Your task to perform on an android device: open app "Booking.com: Hotels and more" (install if not already installed) Image 0: 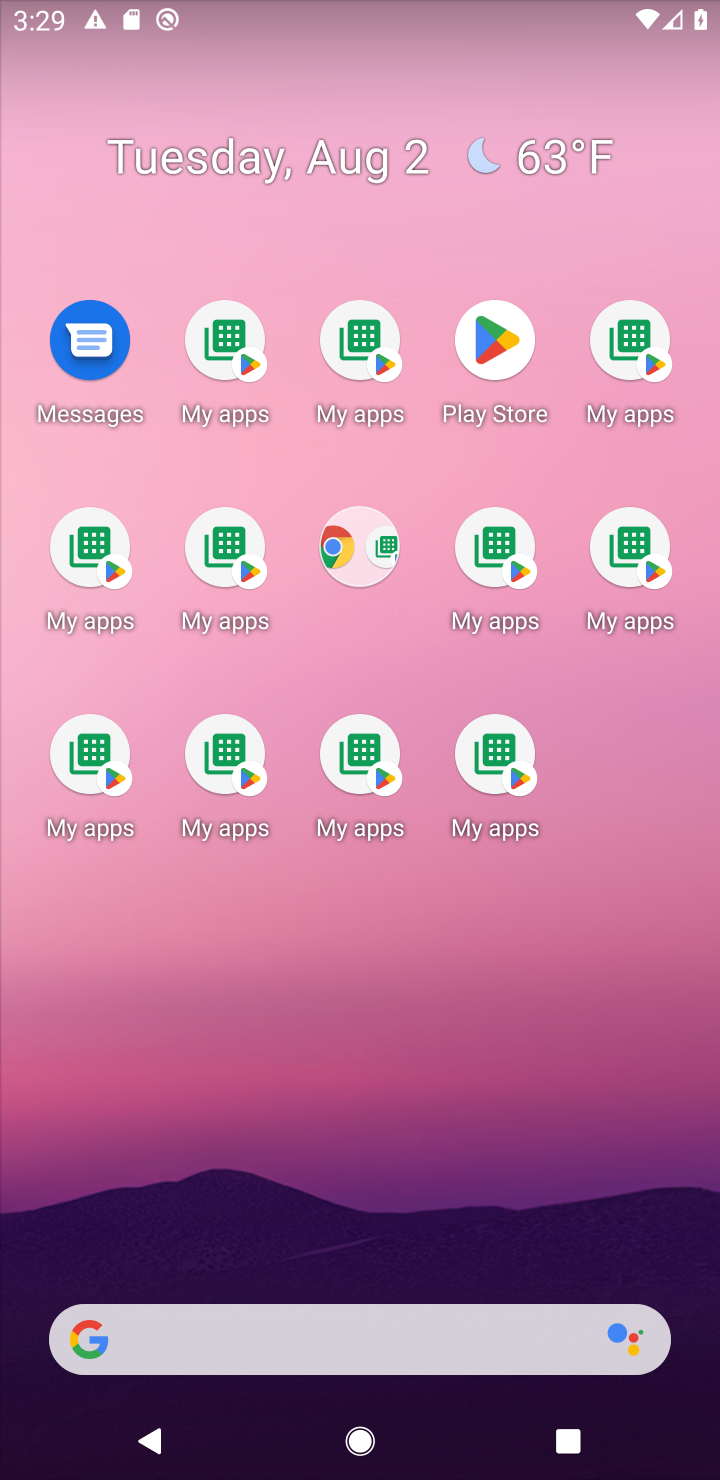
Step 0: click (500, 821)
Your task to perform on an android device: open app "Booking.com: Hotels and more" (install if not already installed) Image 1: 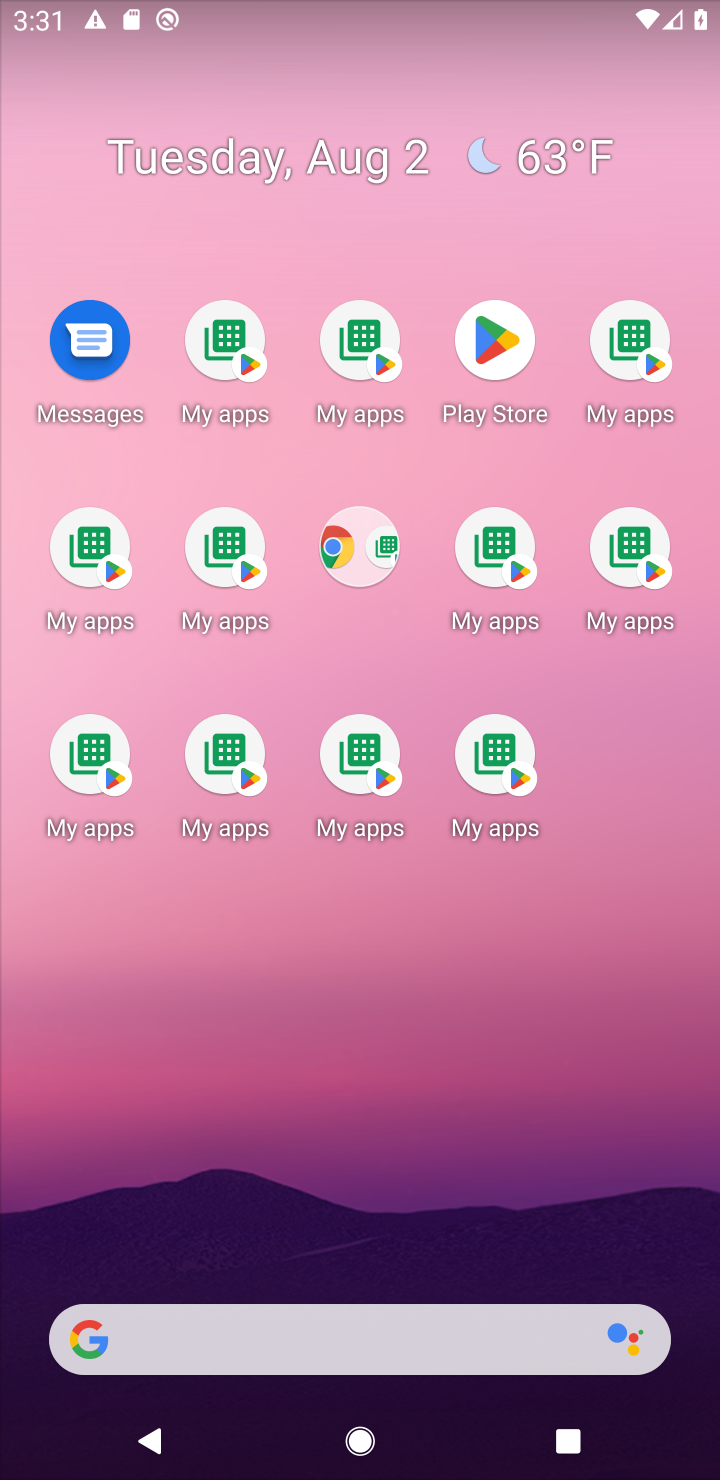
Step 1: click (492, 331)
Your task to perform on an android device: open app "Booking.com: Hotels and more" (install if not already installed) Image 2: 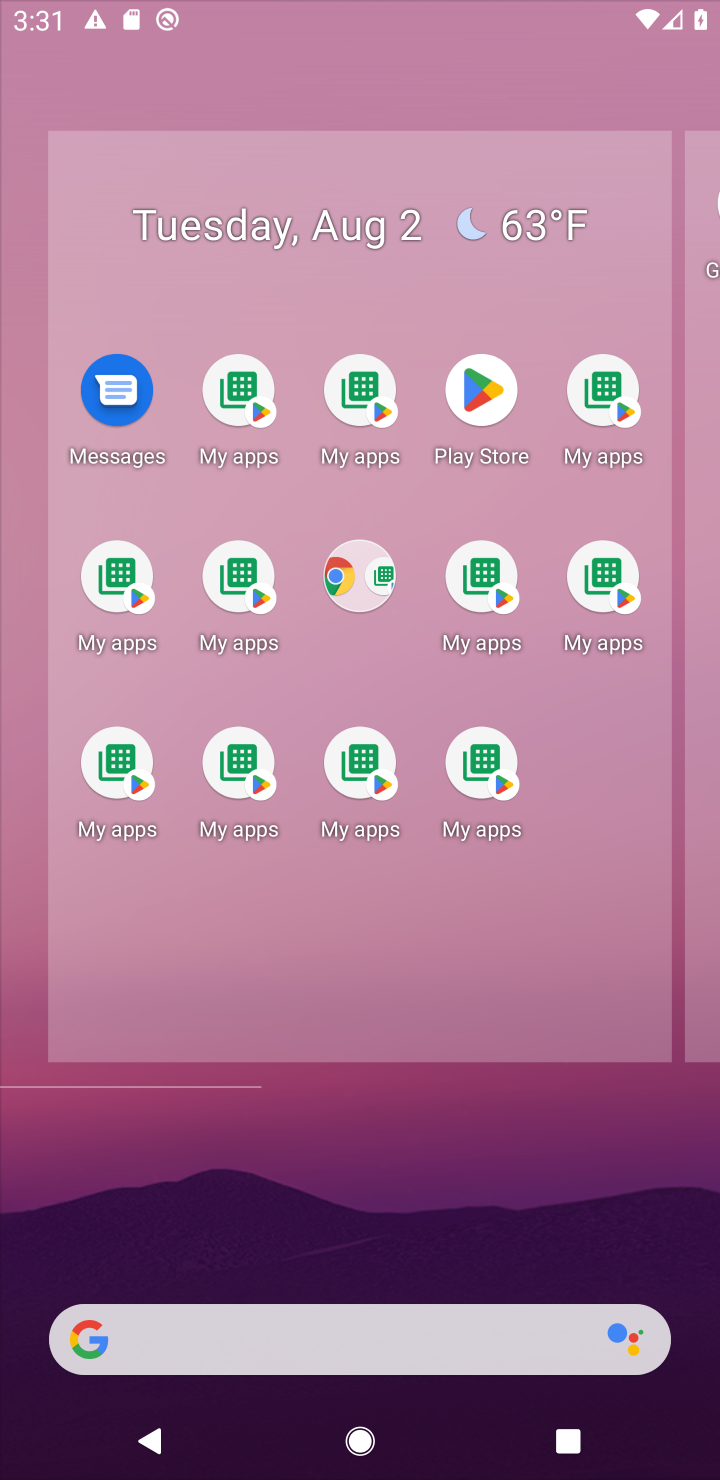
Step 2: click (496, 352)
Your task to perform on an android device: open app "Booking.com: Hotels and more" (install if not already installed) Image 3: 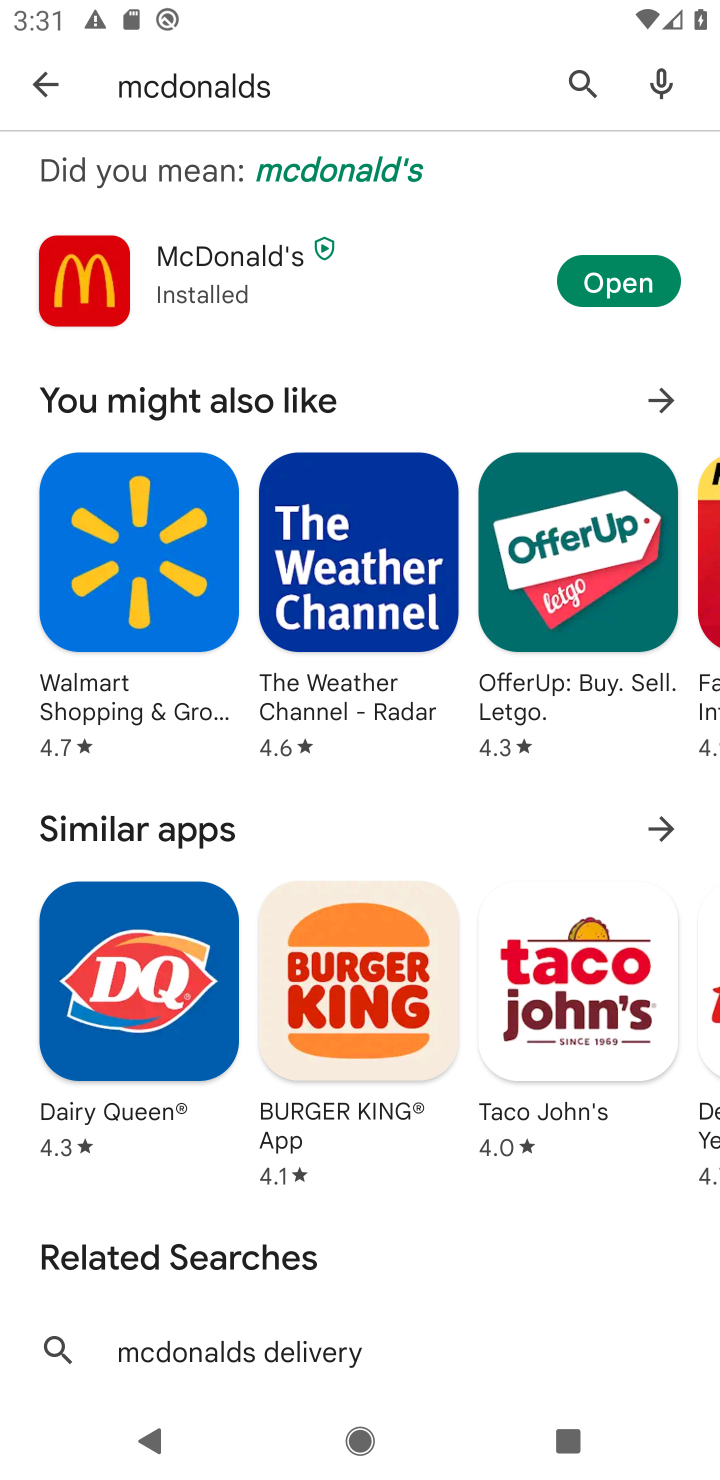
Step 3: click (583, 78)
Your task to perform on an android device: open app "Booking.com: Hotels and more" (install if not already installed) Image 4: 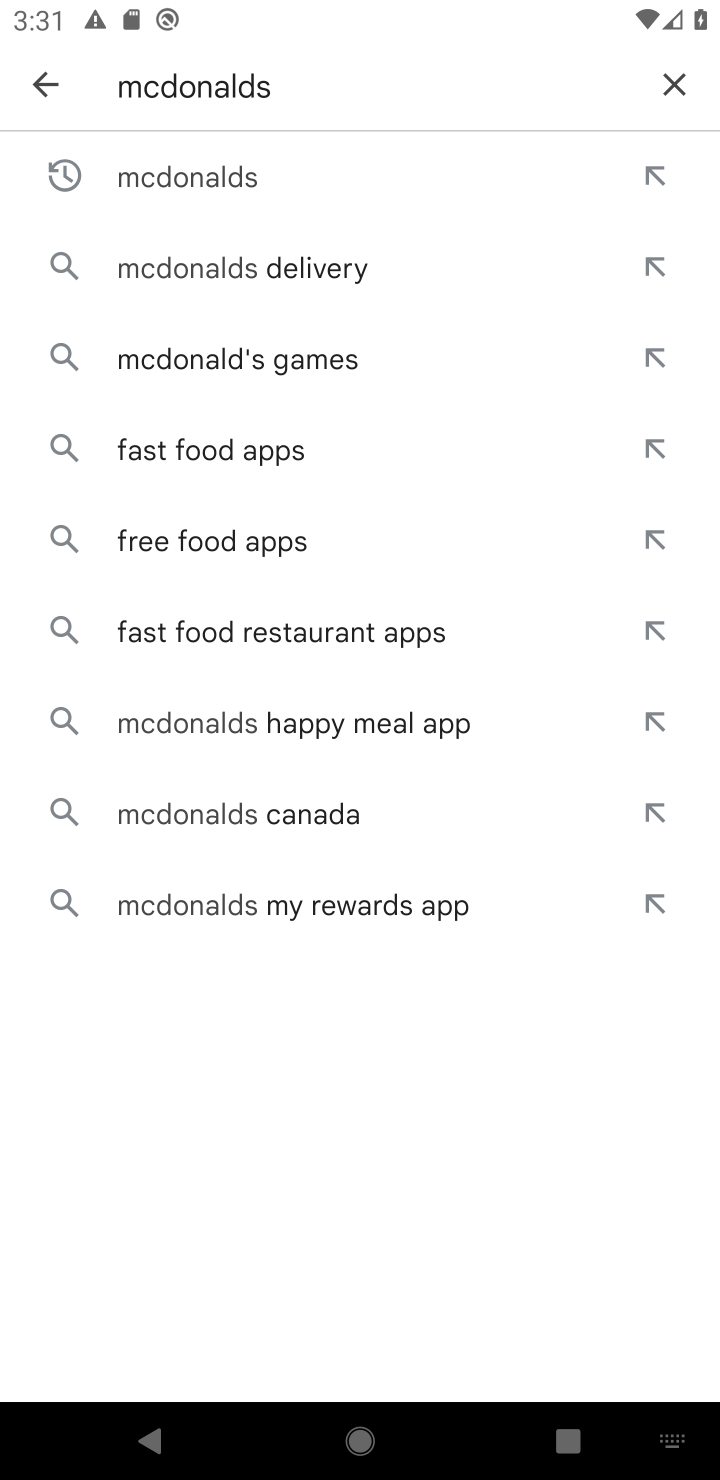
Step 4: click (662, 79)
Your task to perform on an android device: open app "Booking.com: Hotels and more" (install if not already installed) Image 5: 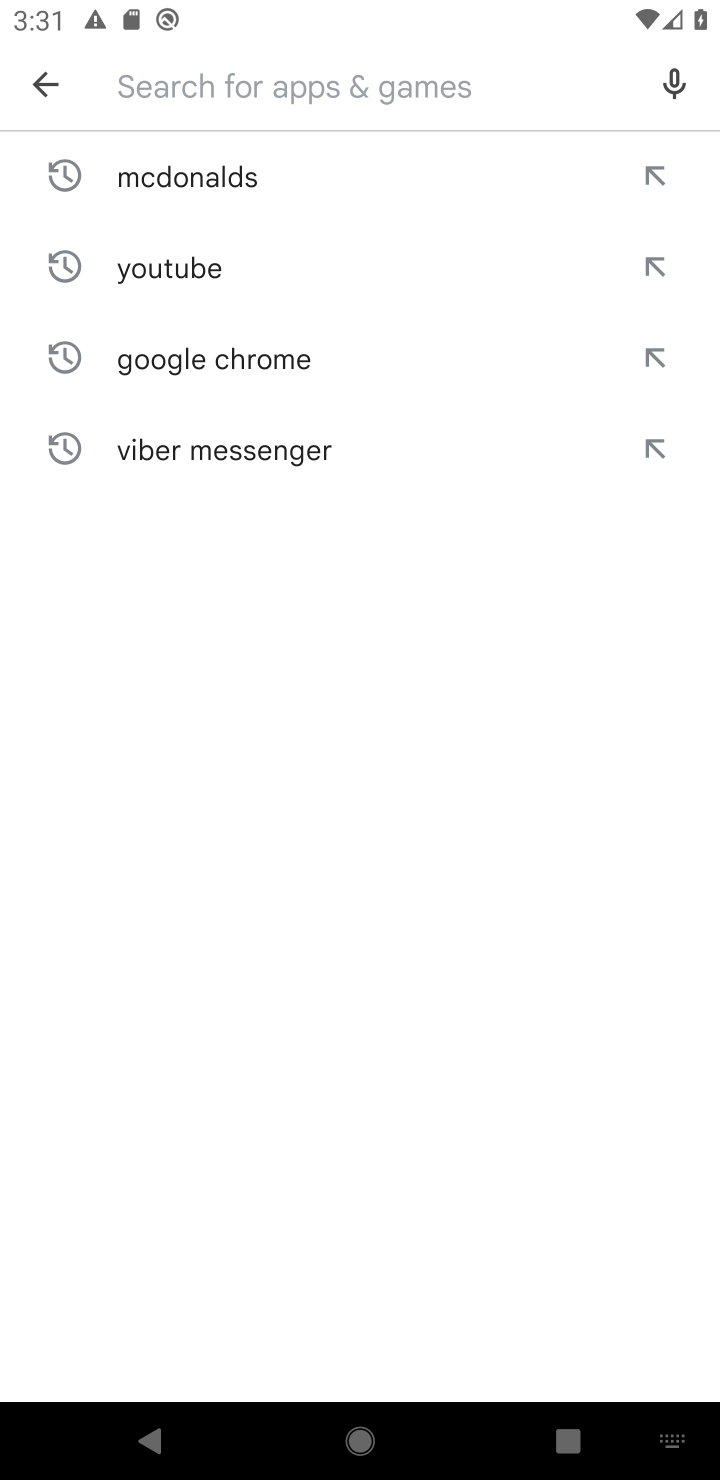
Step 5: type "booking"
Your task to perform on an android device: open app "Booking.com: Hotels and more" (install if not already installed) Image 6: 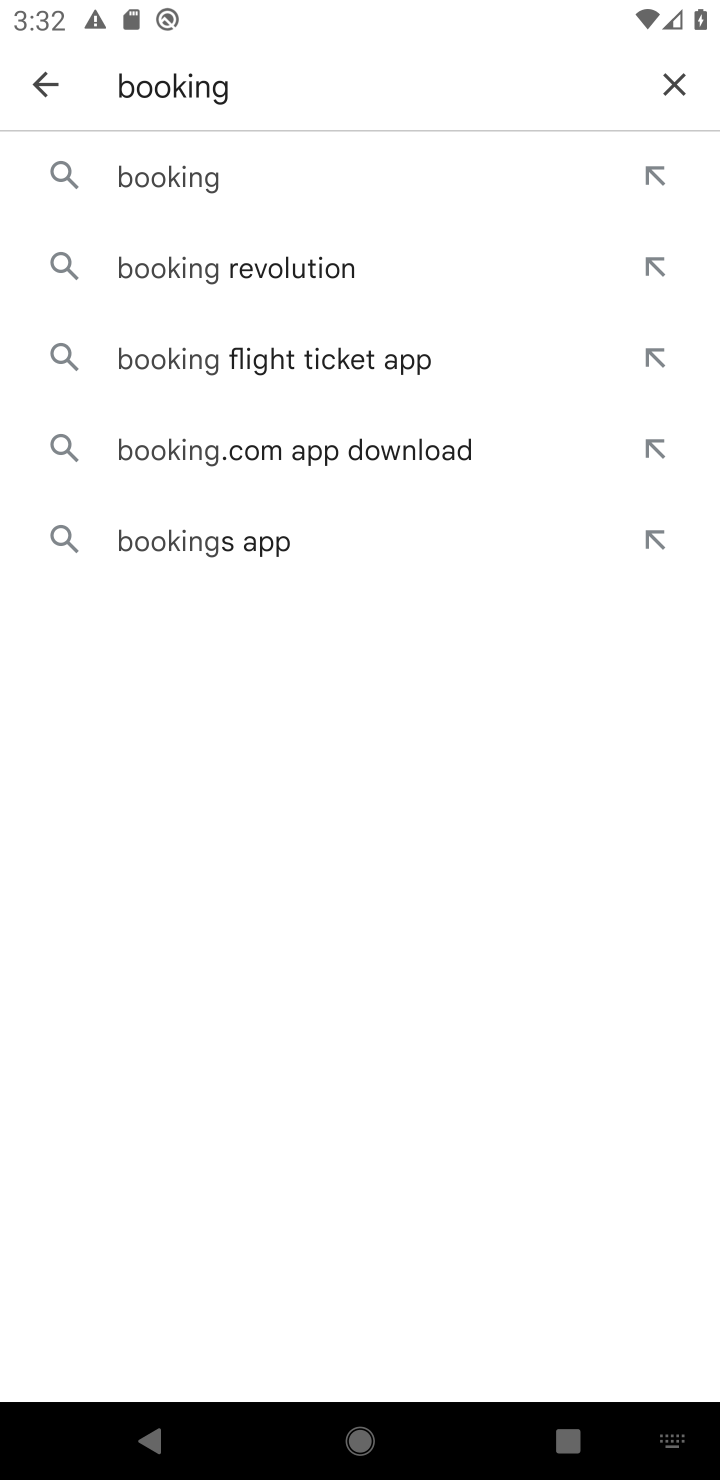
Step 6: click (54, 69)
Your task to perform on an android device: open app "Booking.com: Hotels and more" (install if not already installed) Image 7: 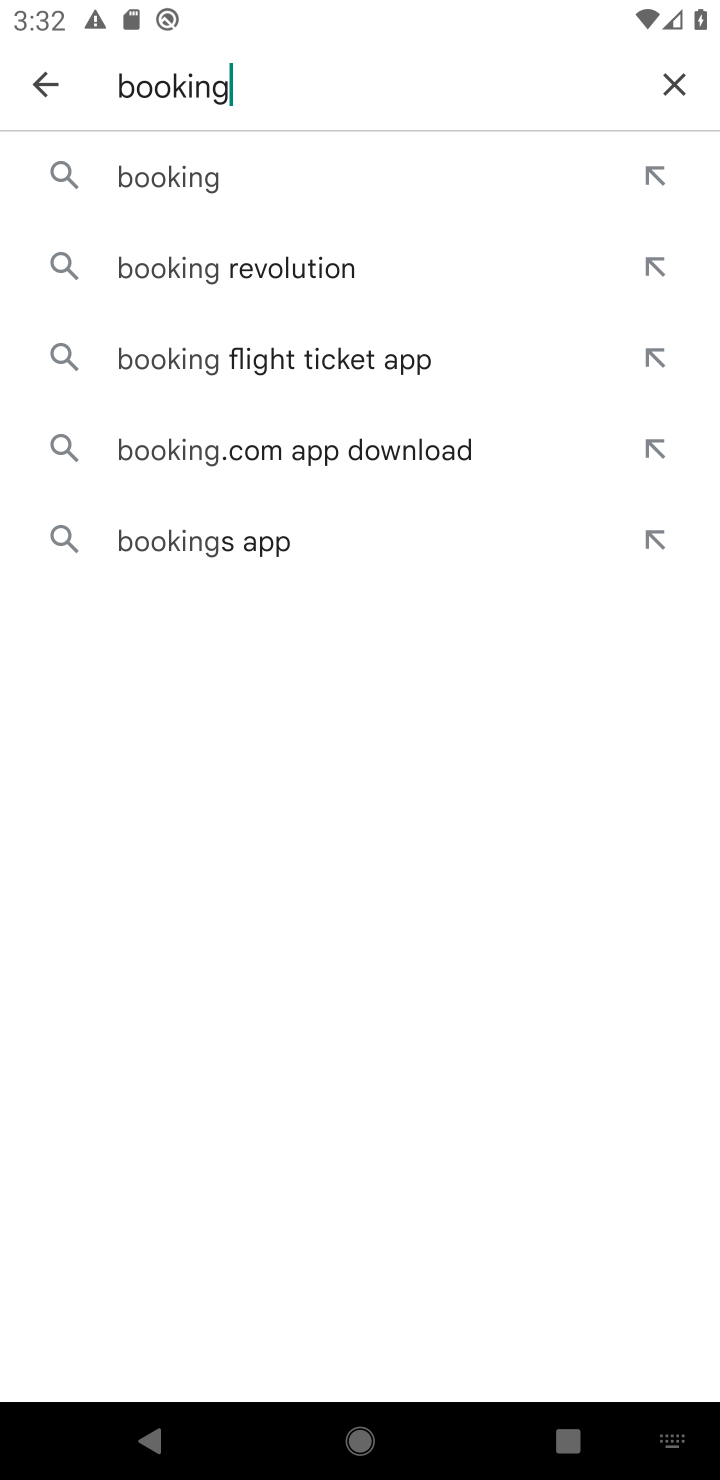
Step 7: click (52, 69)
Your task to perform on an android device: open app "Booking.com: Hotels and more" (install if not already installed) Image 8: 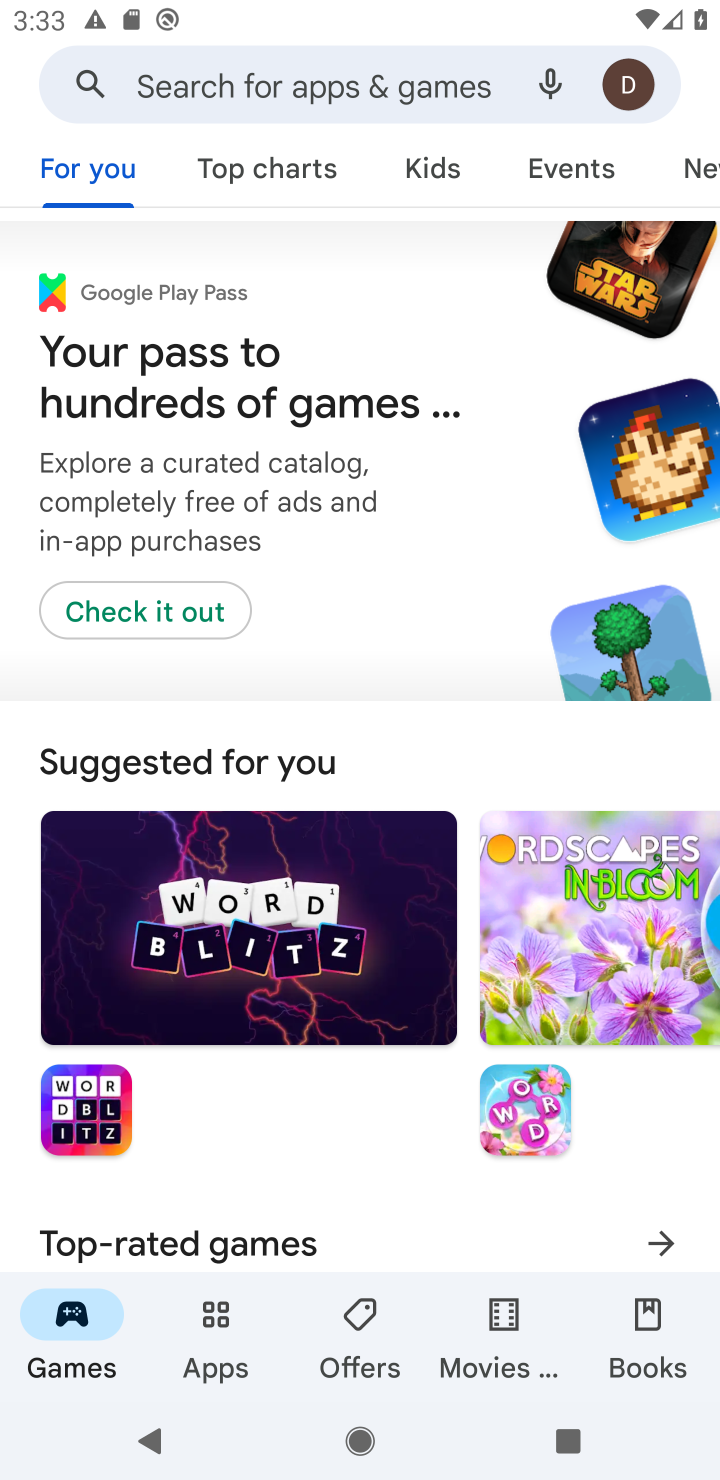
Step 8: click (326, 37)
Your task to perform on an android device: open app "Booking.com: Hotels and more" (install if not already installed) Image 9: 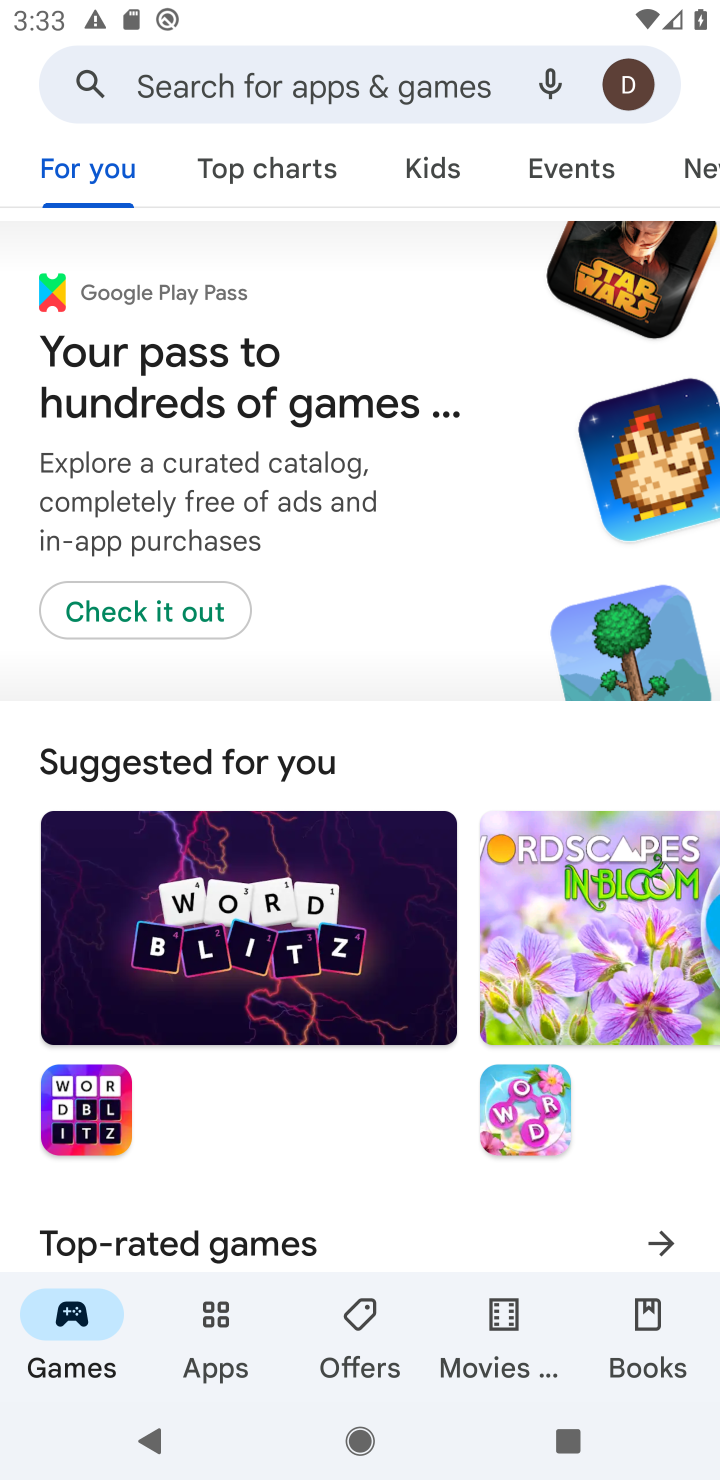
Step 9: click (326, 38)
Your task to perform on an android device: open app "Booking.com: Hotels and more" (install if not already installed) Image 10: 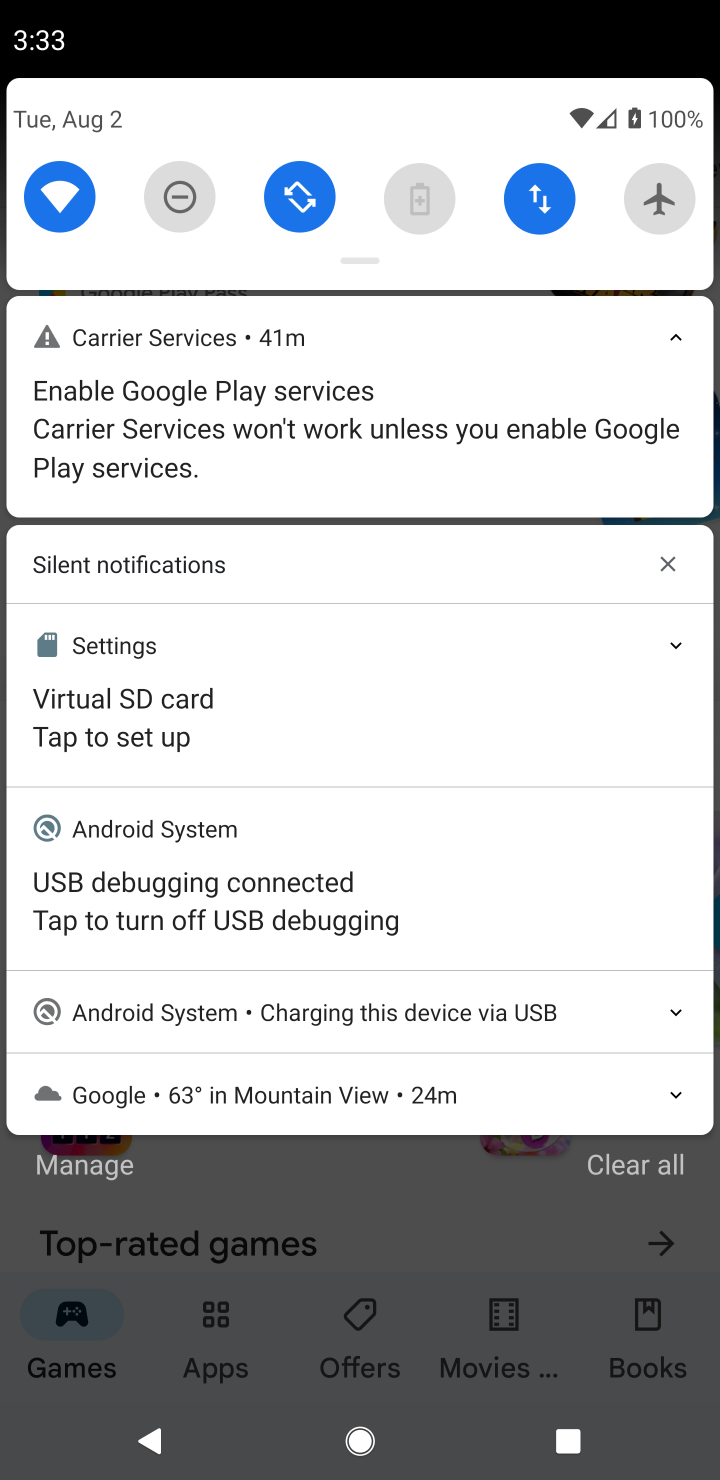
Step 10: click (275, 91)
Your task to perform on an android device: open app "Booking.com: Hotels and more" (install if not already installed) Image 11: 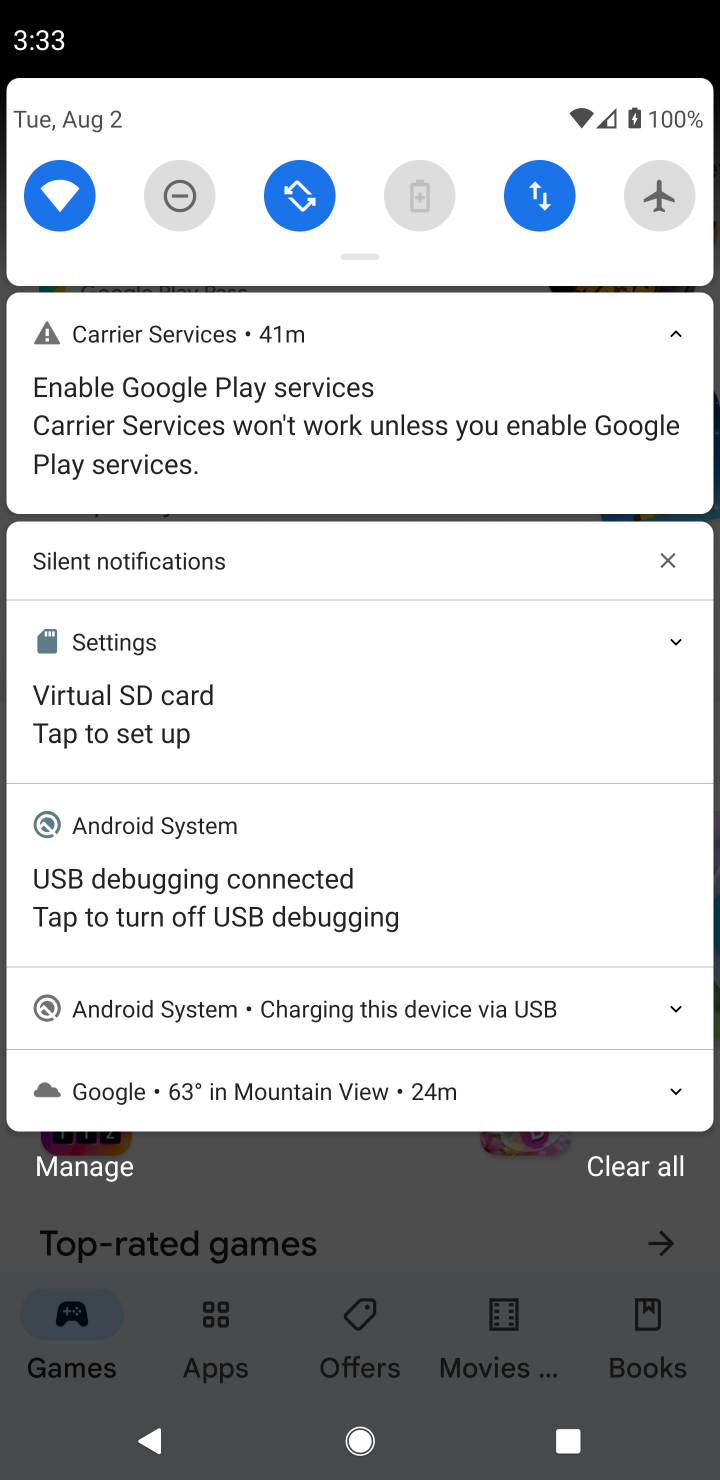
Step 11: drag from (334, 1238) to (266, 582)
Your task to perform on an android device: open app "Booking.com: Hotels and more" (install if not already installed) Image 12: 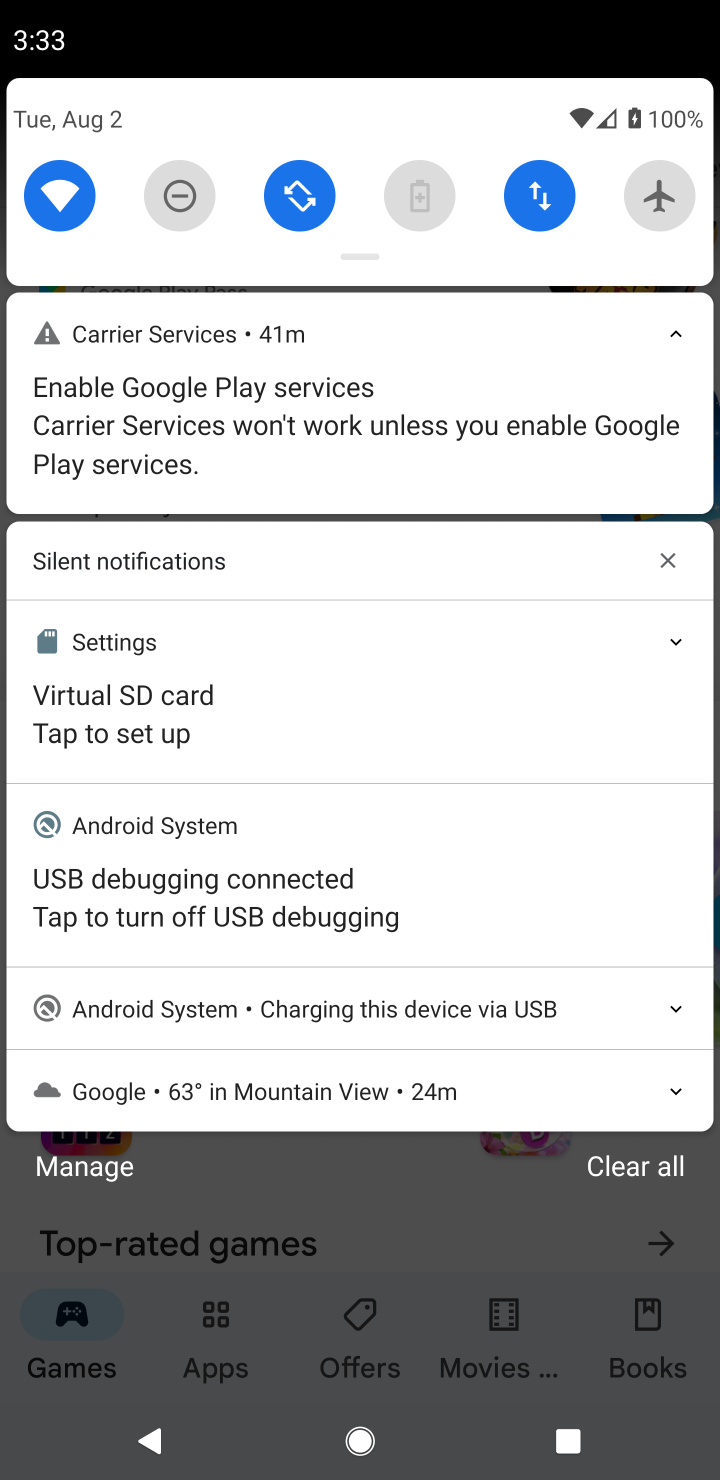
Step 12: drag from (313, 889) to (645, 736)
Your task to perform on an android device: open app "Booking.com: Hotels and more" (install if not already installed) Image 13: 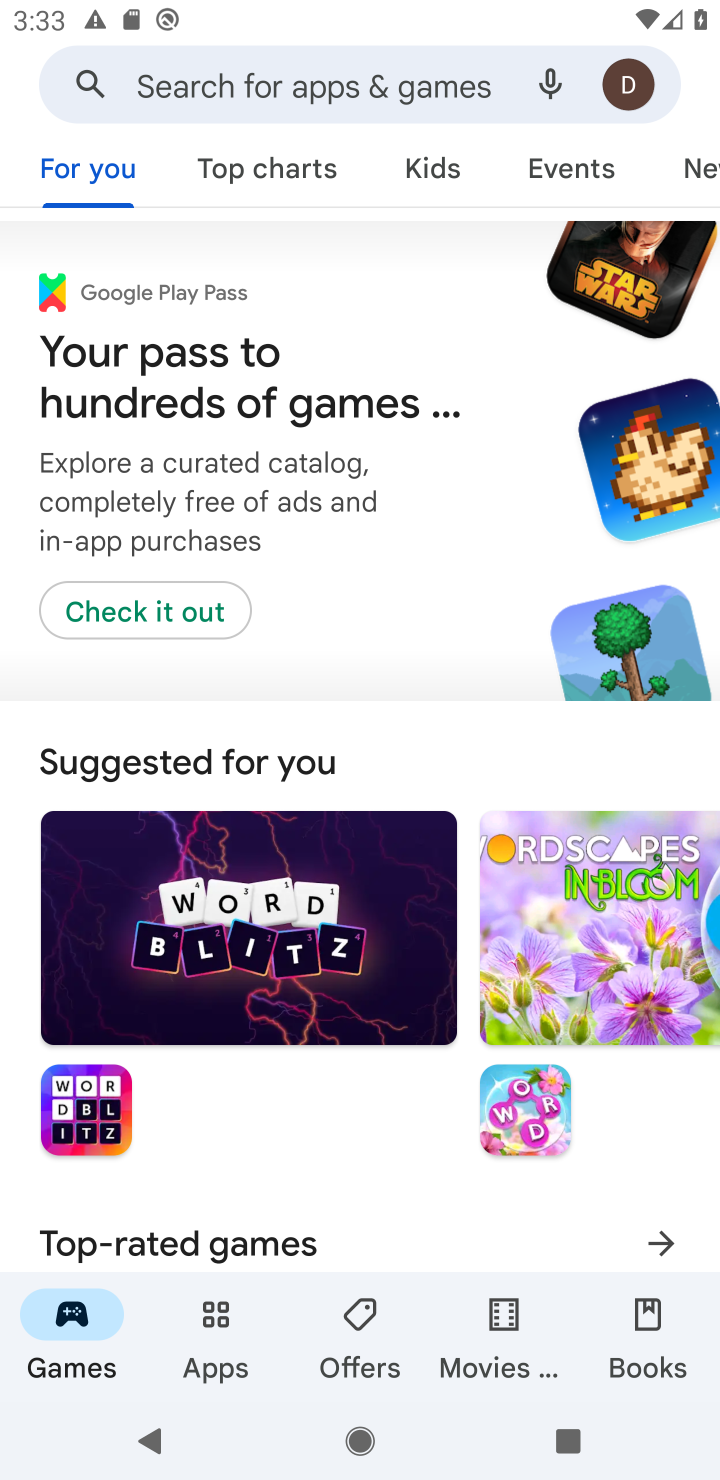
Step 13: click (214, 53)
Your task to perform on an android device: open app "Booking.com: Hotels and more" (install if not already installed) Image 14: 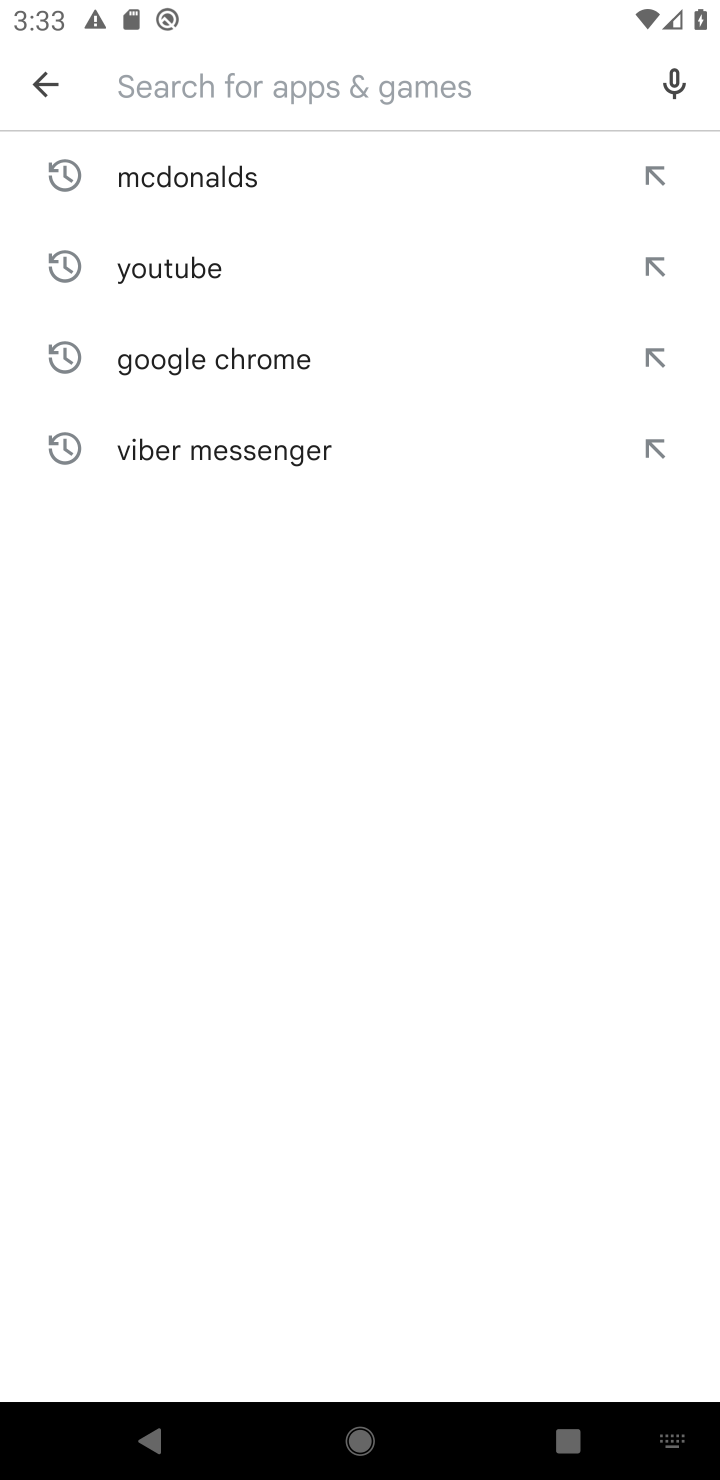
Step 14: type "booking"
Your task to perform on an android device: open app "Booking.com: Hotels and more" (install if not already installed) Image 15: 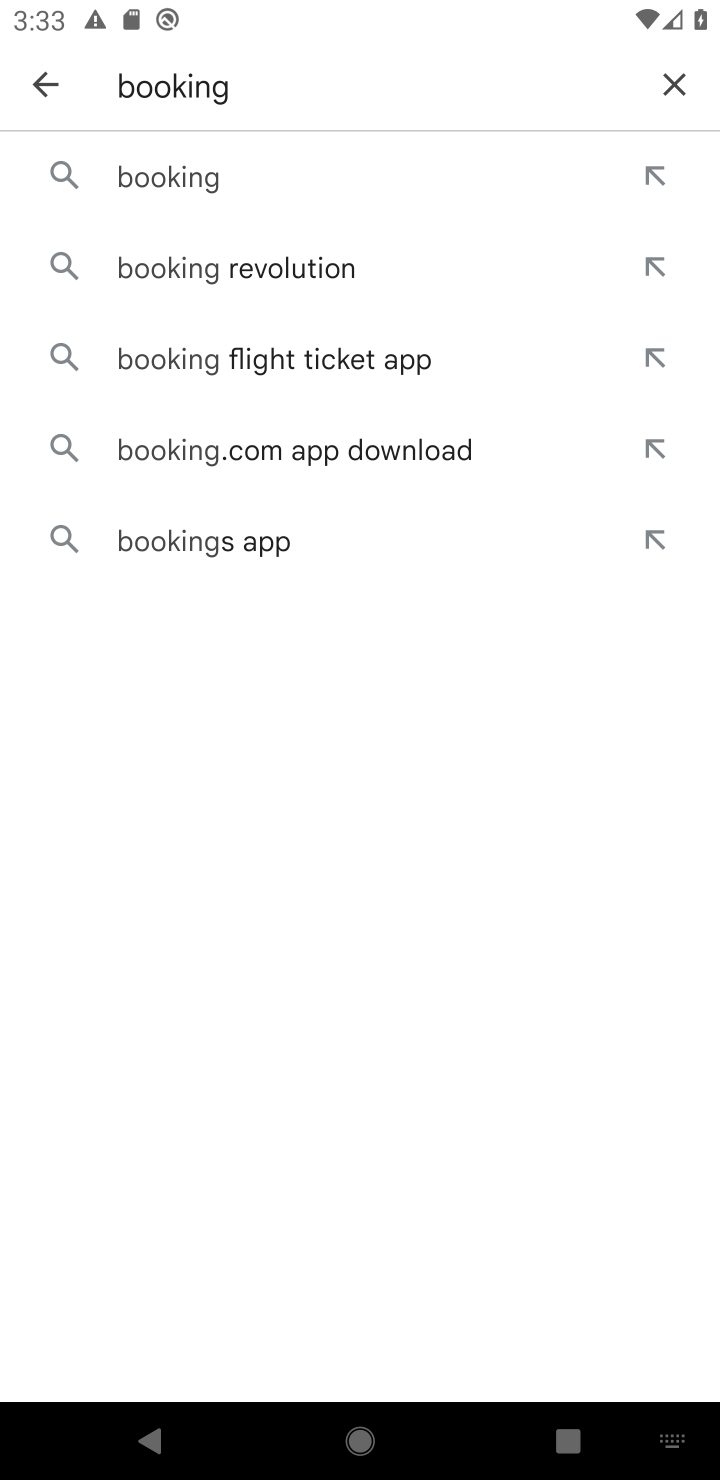
Step 15: click (212, 265)
Your task to perform on an android device: open app "Booking.com: Hotels and more" (install if not already installed) Image 16: 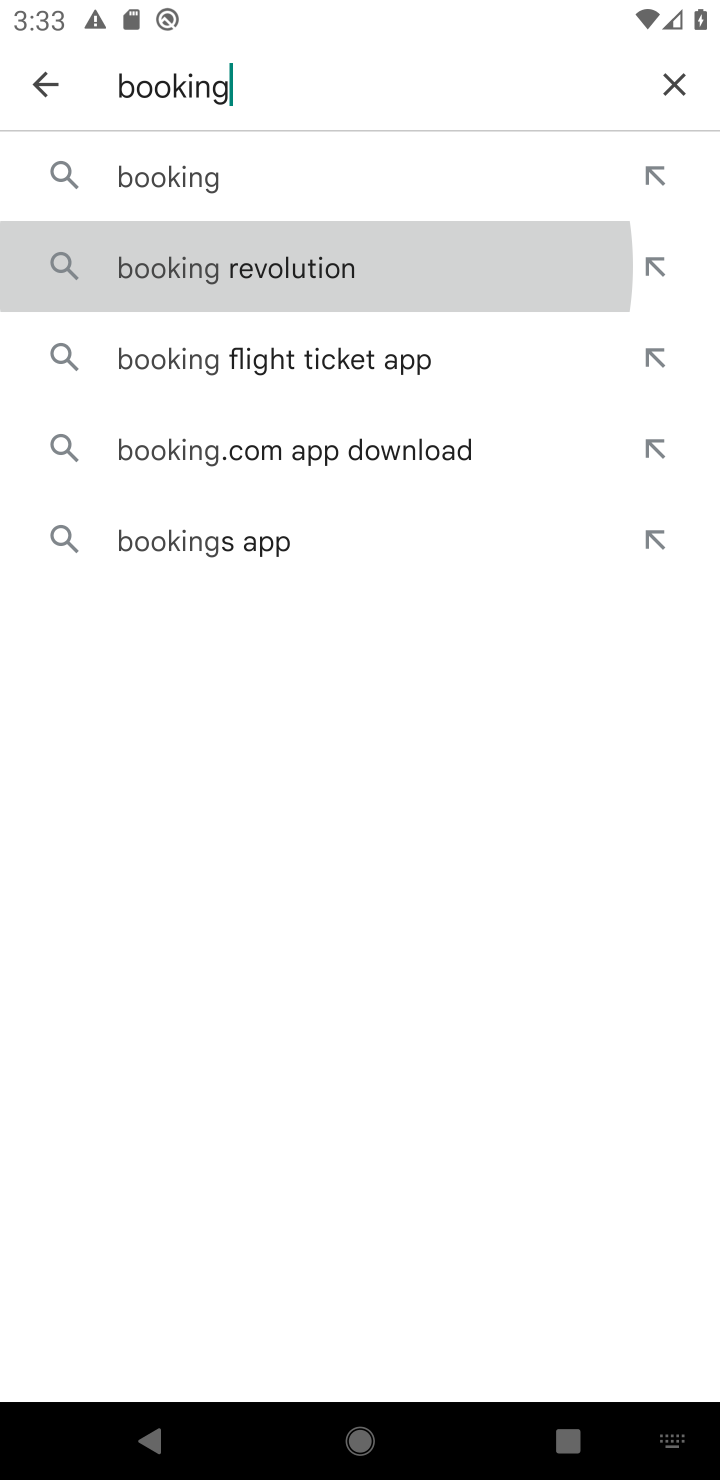
Step 16: click (210, 267)
Your task to perform on an android device: open app "Booking.com: Hotels and more" (install if not already installed) Image 17: 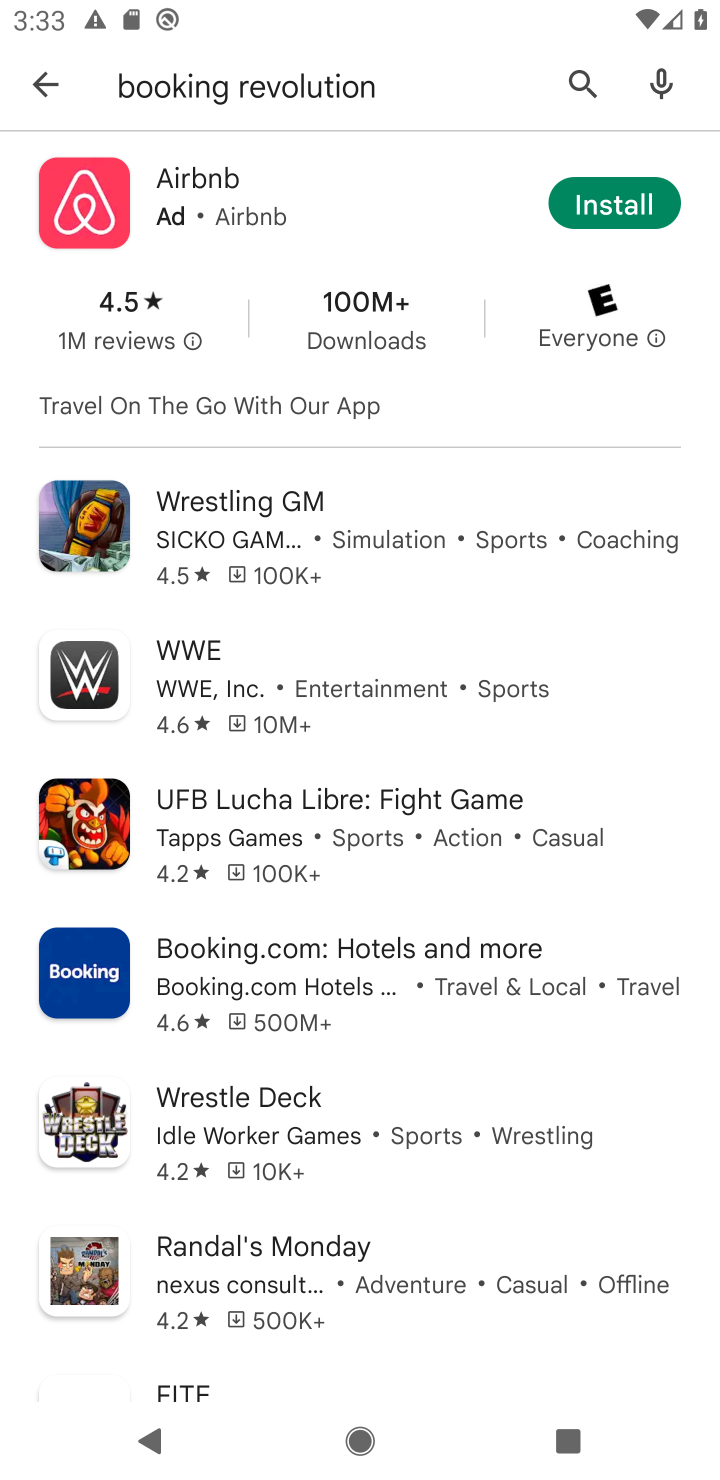
Step 17: click (469, 390)
Your task to perform on an android device: open app "Booking.com: Hotels and more" (install if not already installed) Image 18: 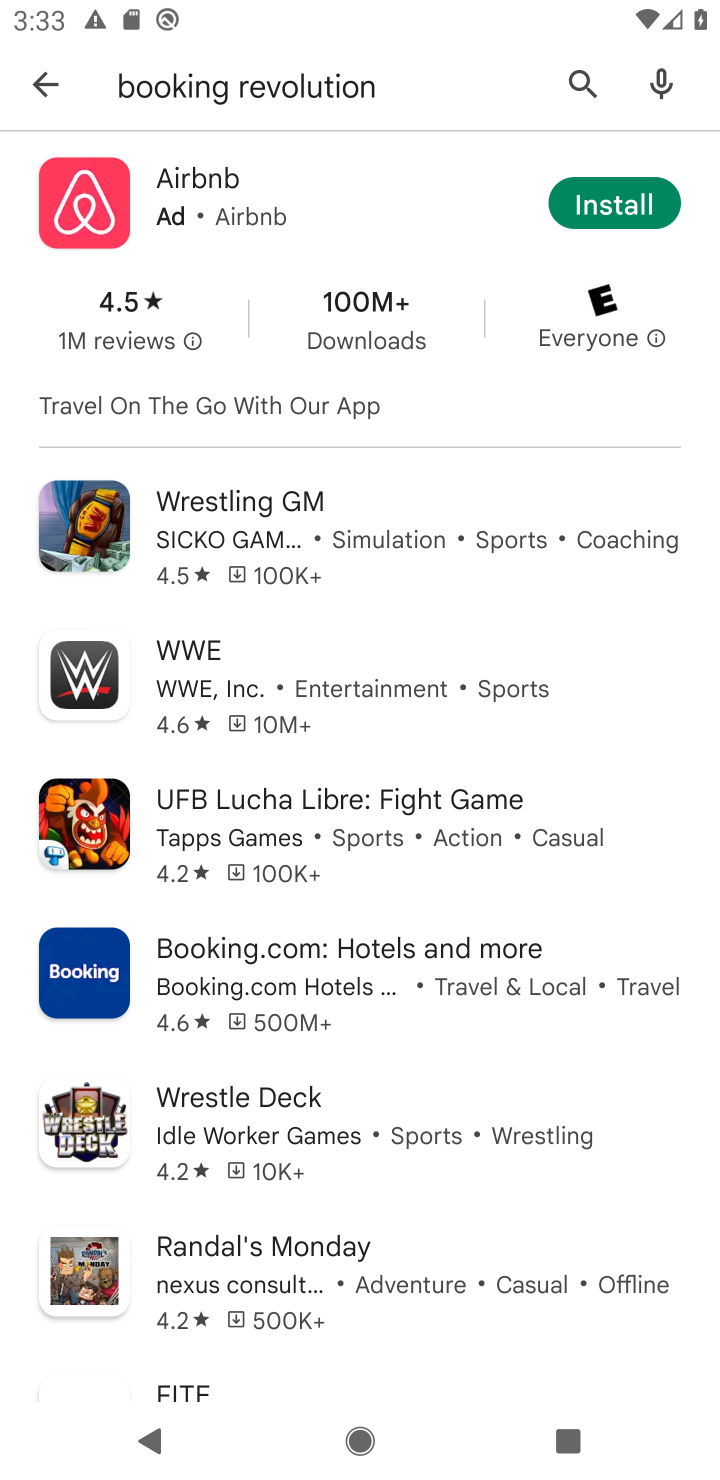
Step 18: click (596, 180)
Your task to perform on an android device: open app "Booking.com: Hotels and more" (install if not already installed) Image 19: 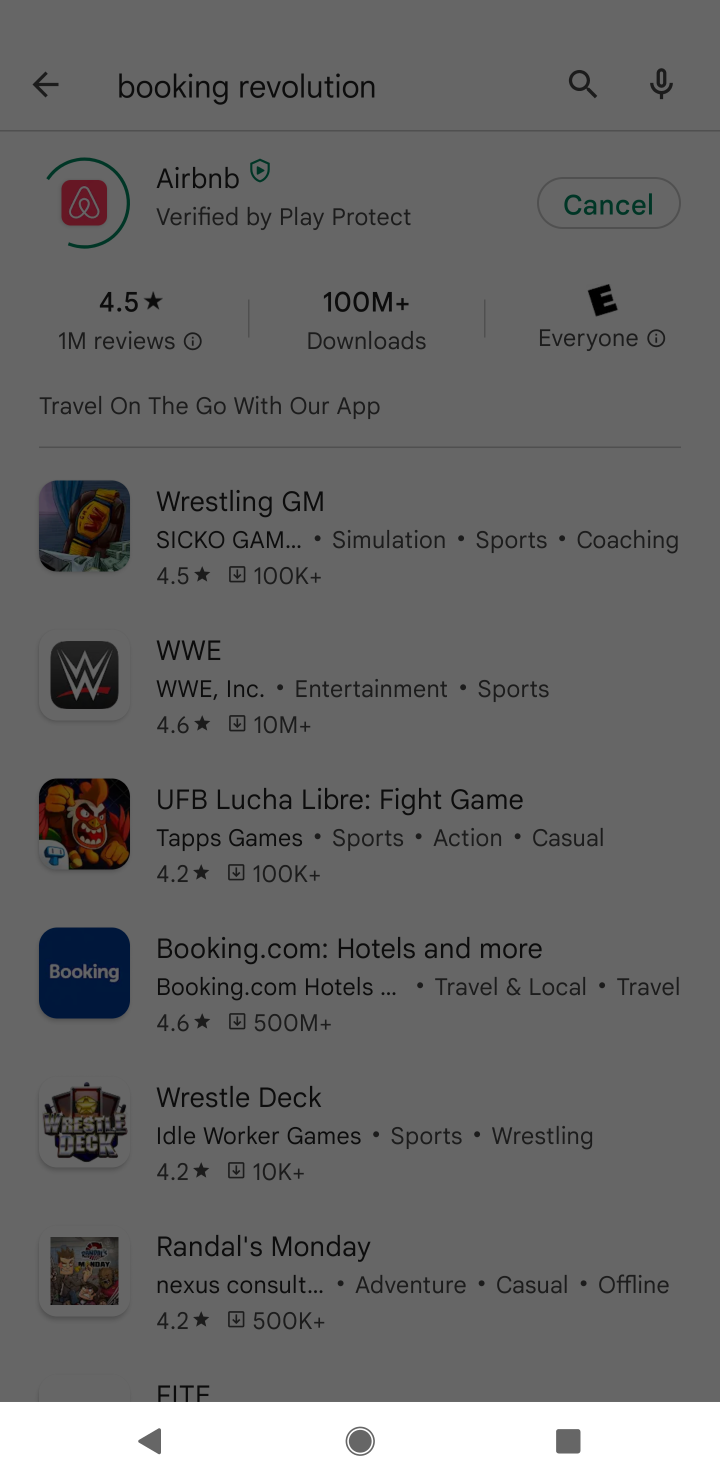
Step 19: task complete